Your task to perform on an android device: turn on showing notifications on the lock screen Image 0: 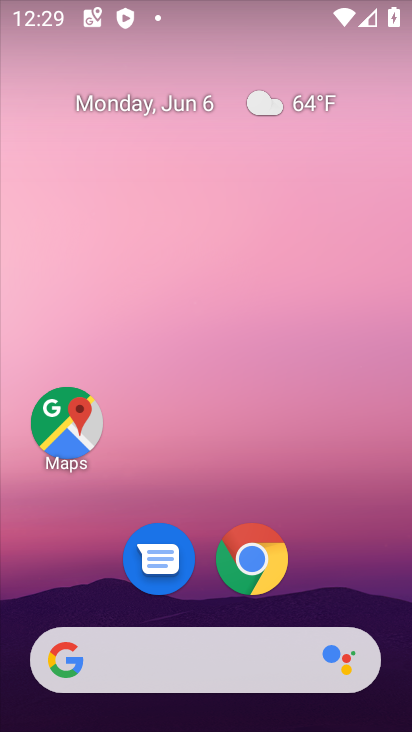
Step 0: drag from (287, 675) to (262, 77)
Your task to perform on an android device: turn on showing notifications on the lock screen Image 1: 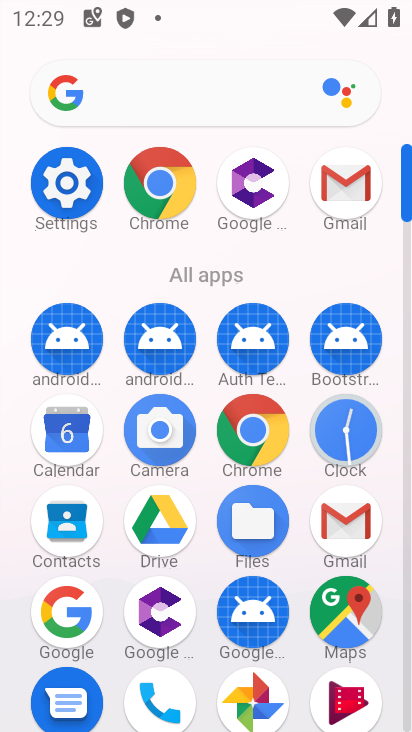
Step 1: click (53, 187)
Your task to perform on an android device: turn on showing notifications on the lock screen Image 2: 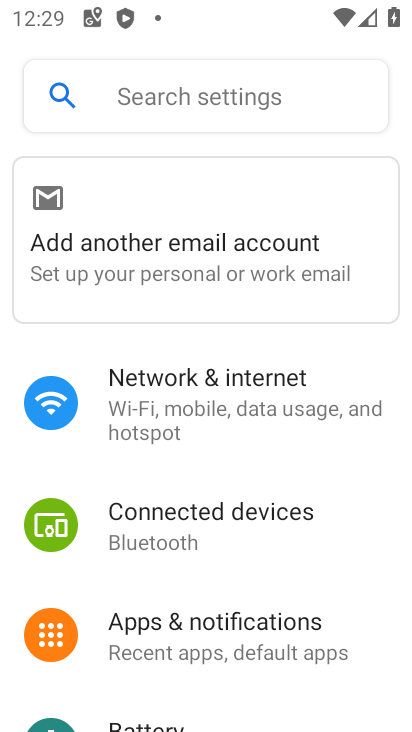
Step 2: click (179, 95)
Your task to perform on an android device: turn on showing notifications on the lock screen Image 3: 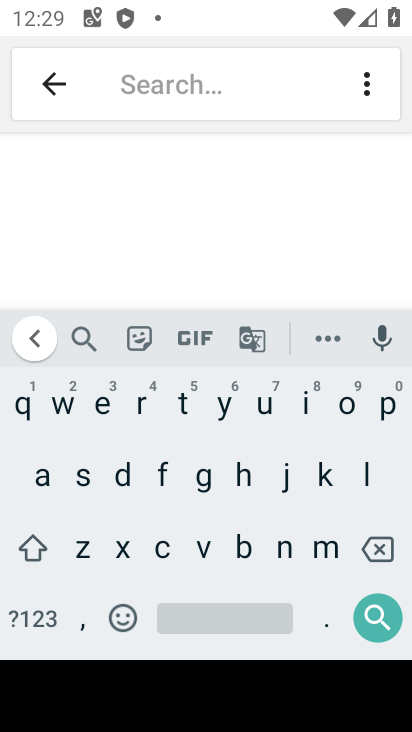
Step 3: click (283, 547)
Your task to perform on an android device: turn on showing notifications on the lock screen Image 4: 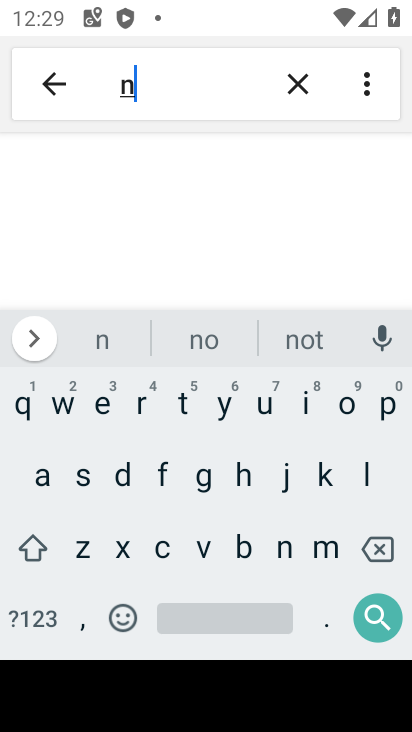
Step 4: click (344, 399)
Your task to perform on an android device: turn on showing notifications on the lock screen Image 5: 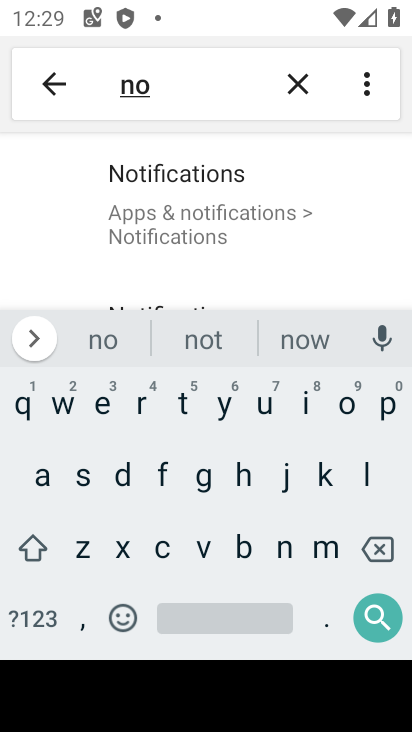
Step 5: click (195, 190)
Your task to perform on an android device: turn on showing notifications on the lock screen Image 6: 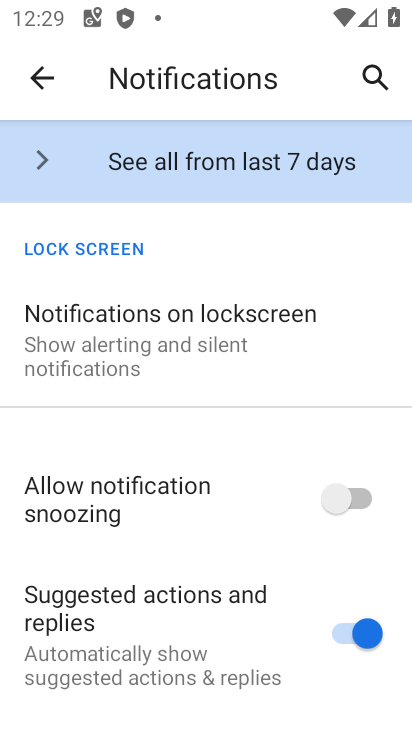
Step 6: click (160, 333)
Your task to perform on an android device: turn on showing notifications on the lock screen Image 7: 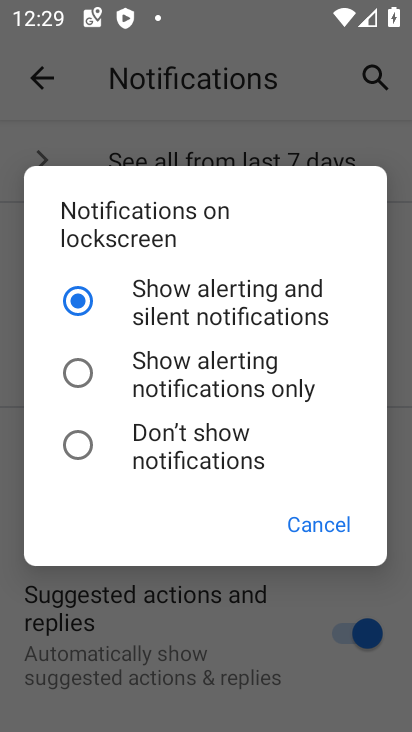
Step 7: task complete